Your task to perform on an android device: turn off data saver in the chrome app Image 0: 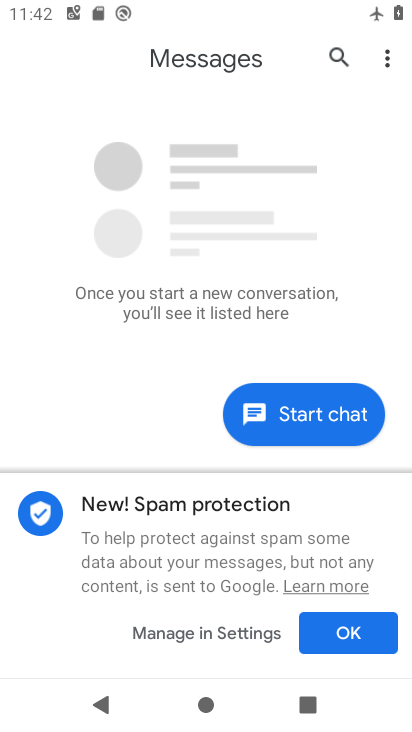
Step 0: press home button
Your task to perform on an android device: turn off data saver in the chrome app Image 1: 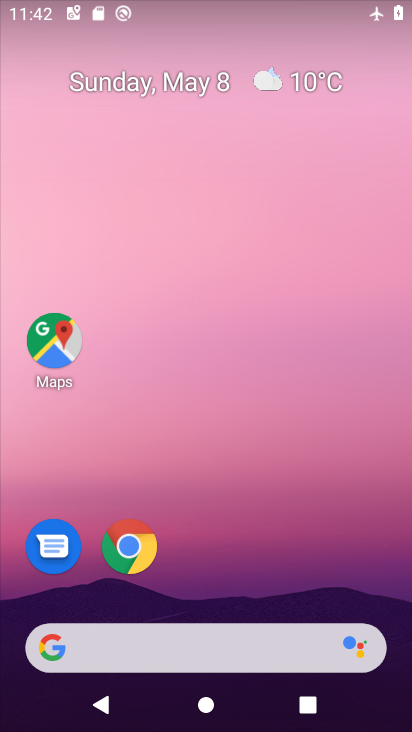
Step 1: click (123, 543)
Your task to perform on an android device: turn off data saver in the chrome app Image 2: 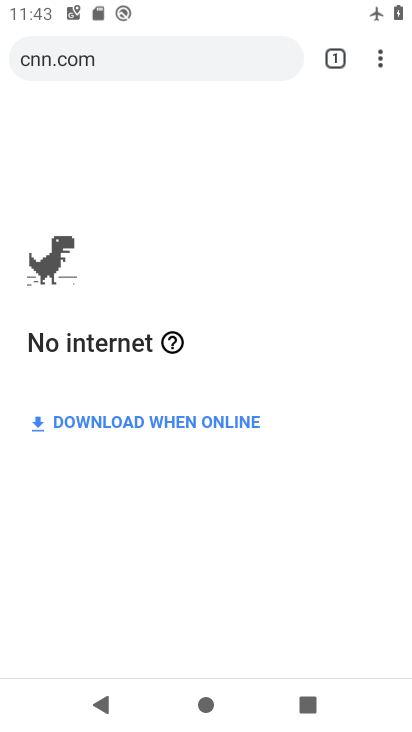
Step 2: click (380, 66)
Your task to perform on an android device: turn off data saver in the chrome app Image 3: 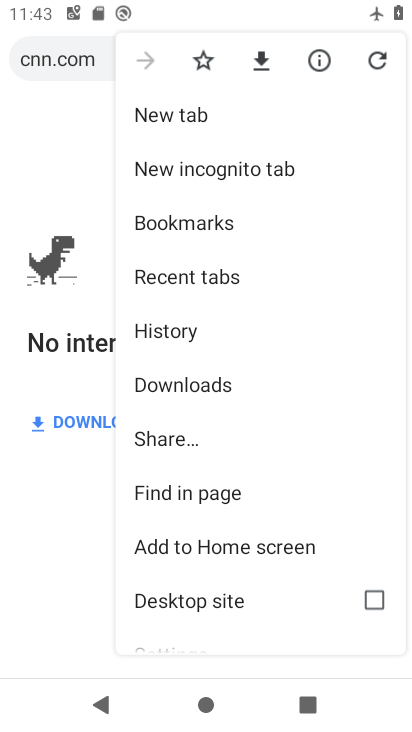
Step 3: drag from (300, 458) to (290, 176)
Your task to perform on an android device: turn off data saver in the chrome app Image 4: 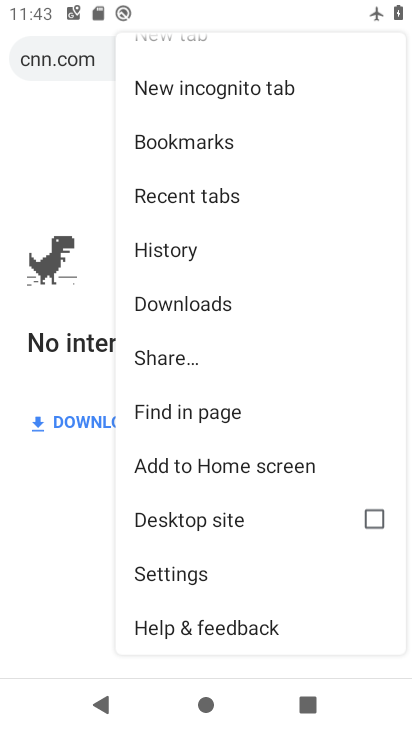
Step 4: click (154, 571)
Your task to perform on an android device: turn off data saver in the chrome app Image 5: 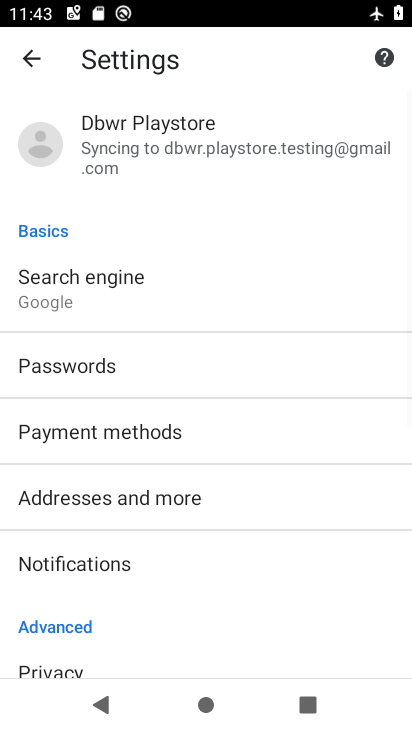
Step 5: drag from (212, 607) to (252, 144)
Your task to perform on an android device: turn off data saver in the chrome app Image 6: 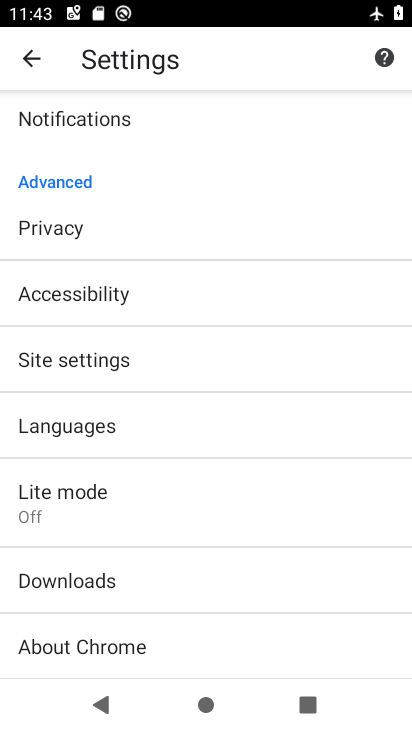
Step 6: click (47, 487)
Your task to perform on an android device: turn off data saver in the chrome app Image 7: 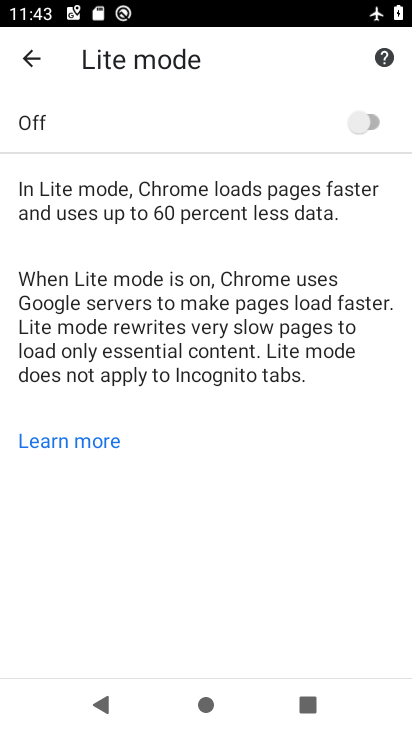
Step 7: task complete